Your task to perform on an android device: Search for sushi restaurants on Maps Image 0: 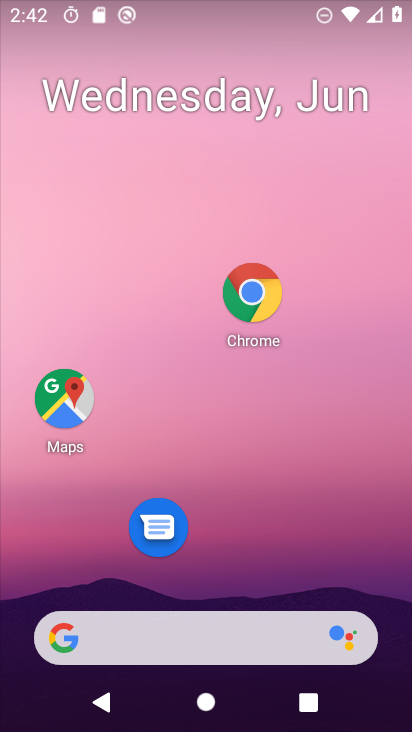
Step 0: drag from (246, 592) to (254, 213)
Your task to perform on an android device: Search for sushi restaurants on Maps Image 1: 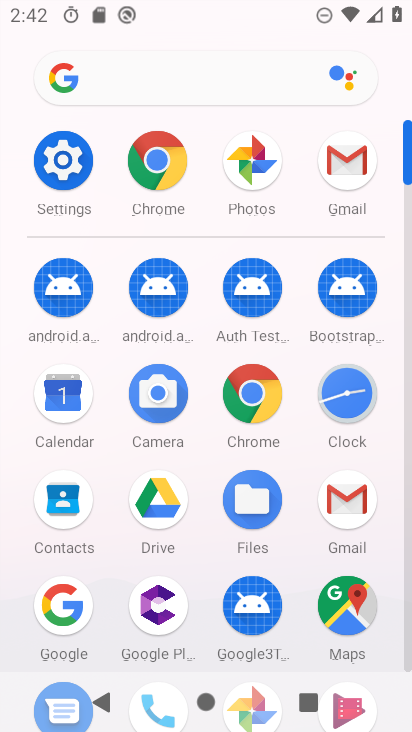
Step 1: drag from (242, 452) to (242, 203)
Your task to perform on an android device: Search for sushi restaurants on Maps Image 2: 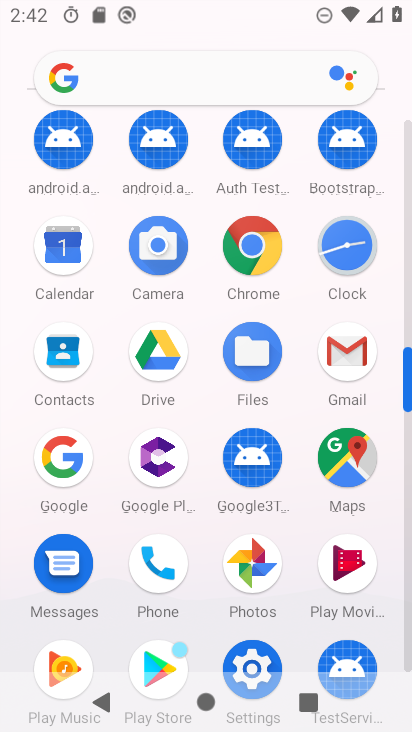
Step 2: click (340, 456)
Your task to perform on an android device: Search for sushi restaurants on Maps Image 3: 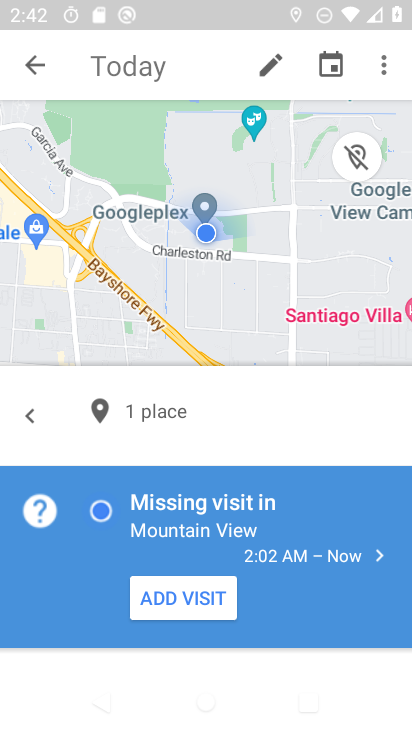
Step 3: click (29, 74)
Your task to perform on an android device: Search for sushi restaurants on Maps Image 4: 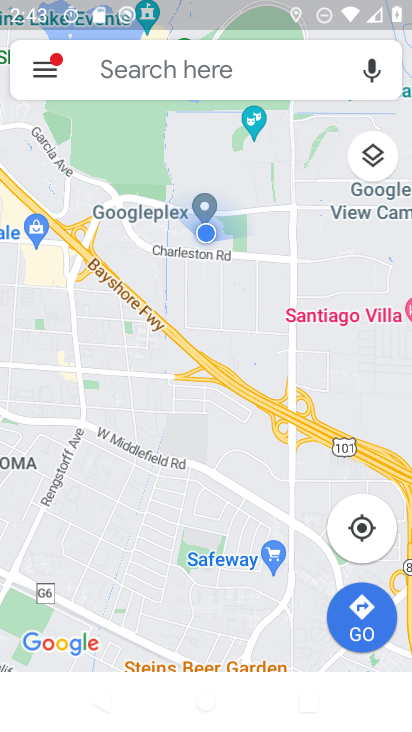
Step 4: click (168, 67)
Your task to perform on an android device: Search for sushi restaurants on Maps Image 5: 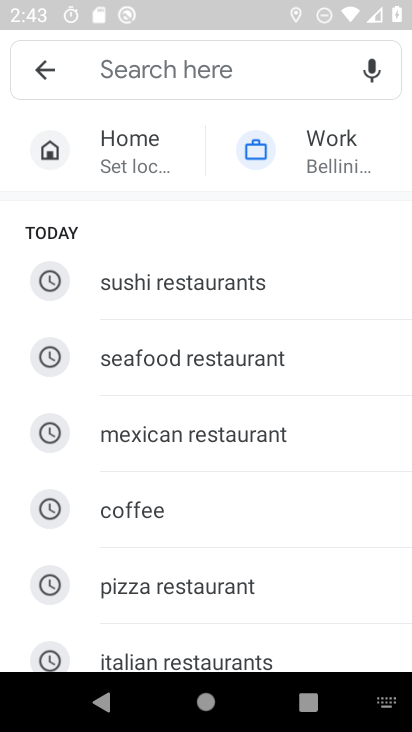
Step 5: click (178, 275)
Your task to perform on an android device: Search for sushi restaurants on Maps Image 6: 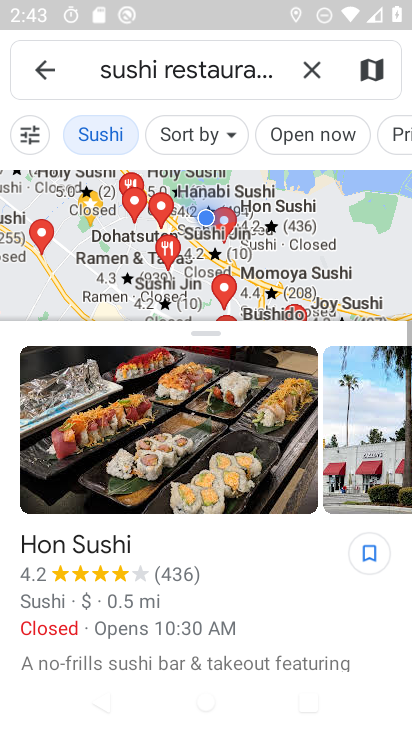
Step 6: task complete